Your task to perform on an android device: open chrome privacy settings Image 0: 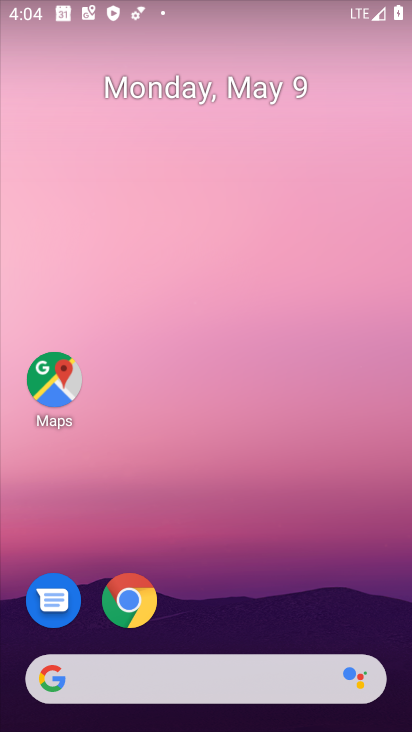
Step 0: drag from (393, 642) to (307, 4)
Your task to perform on an android device: open chrome privacy settings Image 1: 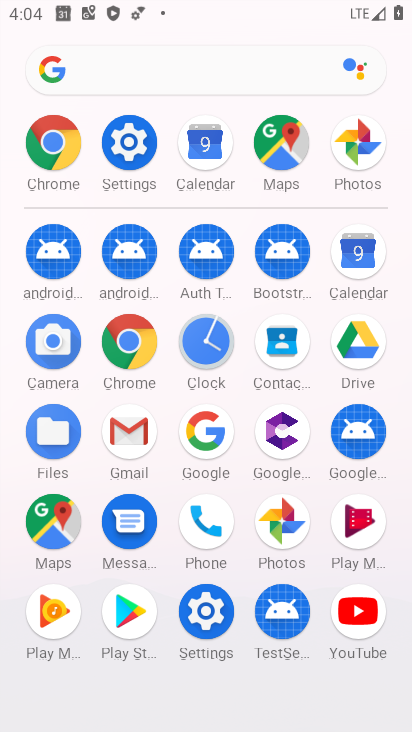
Step 1: click (131, 338)
Your task to perform on an android device: open chrome privacy settings Image 2: 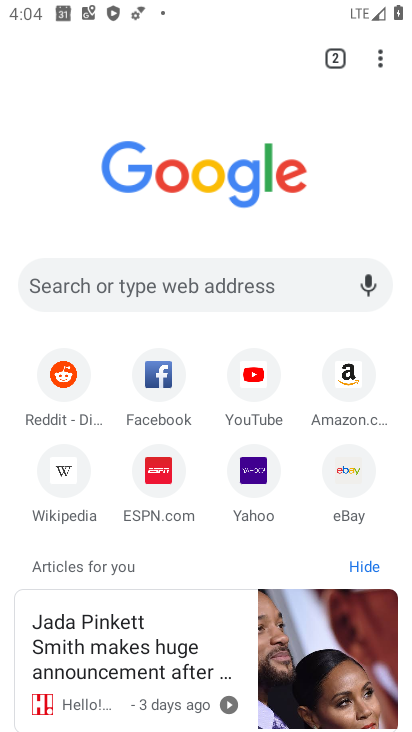
Step 2: drag from (378, 46) to (166, 500)
Your task to perform on an android device: open chrome privacy settings Image 3: 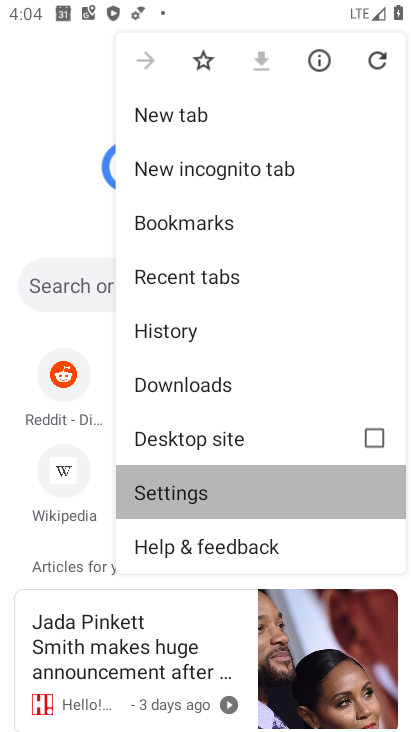
Step 3: click (168, 504)
Your task to perform on an android device: open chrome privacy settings Image 4: 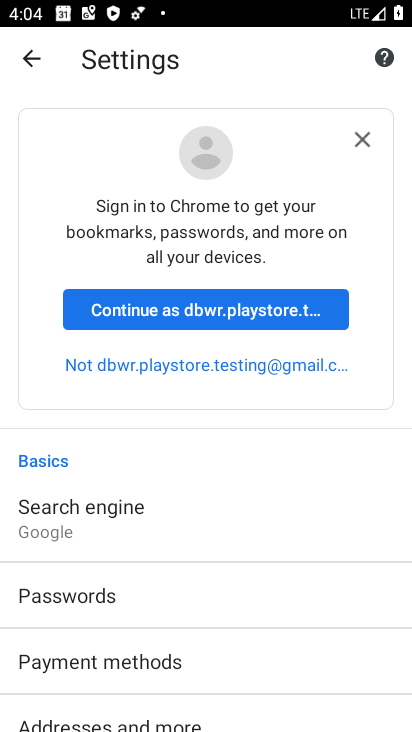
Step 4: drag from (261, 675) to (281, 207)
Your task to perform on an android device: open chrome privacy settings Image 5: 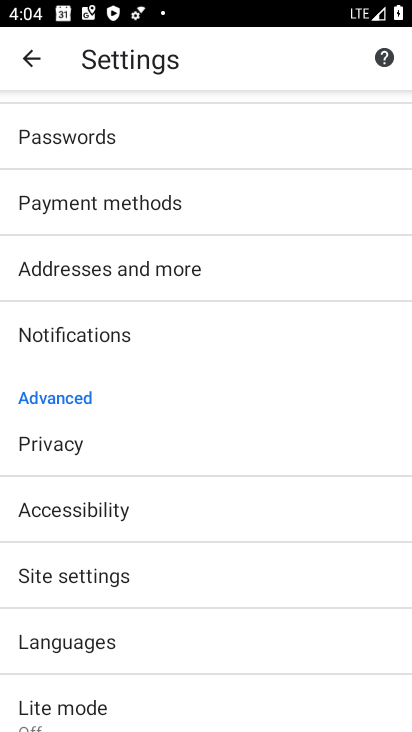
Step 5: click (123, 683)
Your task to perform on an android device: open chrome privacy settings Image 6: 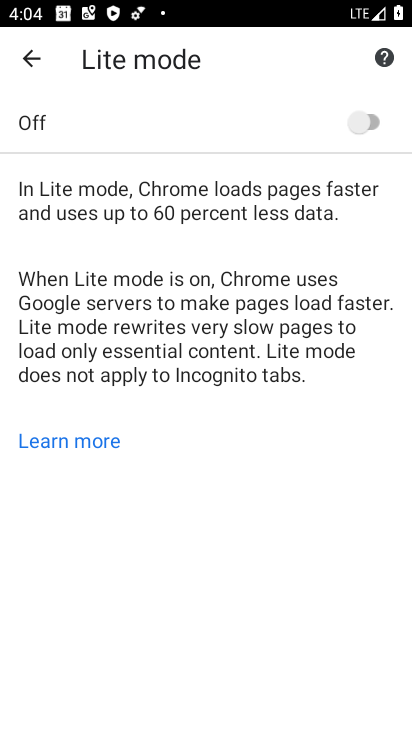
Step 6: press back button
Your task to perform on an android device: open chrome privacy settings Image 7: 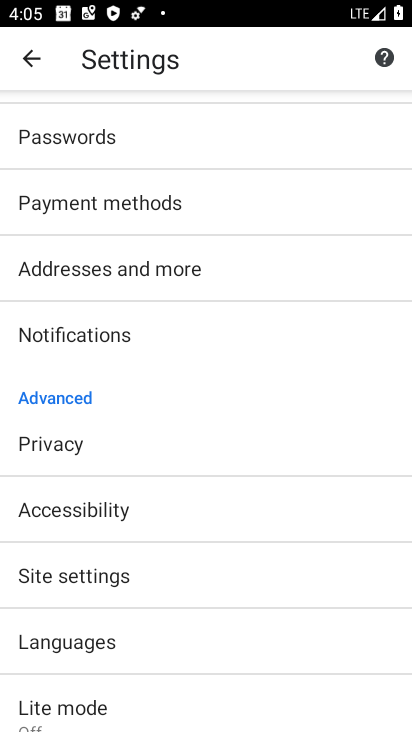
Step 7: click (150, 461)
Your task to perform on an android device: open chrome privacy settings Image 8: 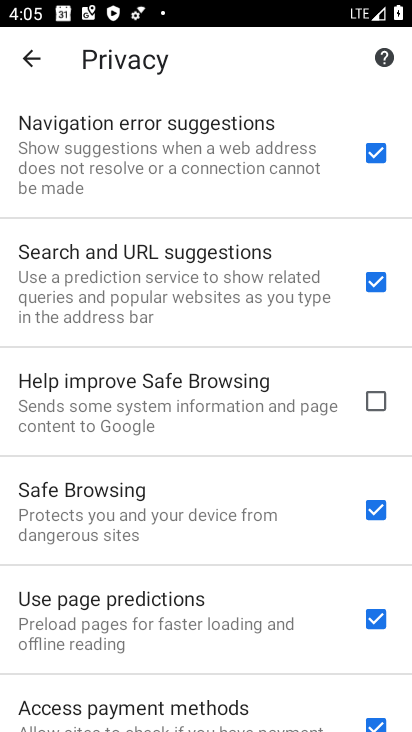
Step 8: task complete